Your task to perform on an android device: toggle location history Image 0: 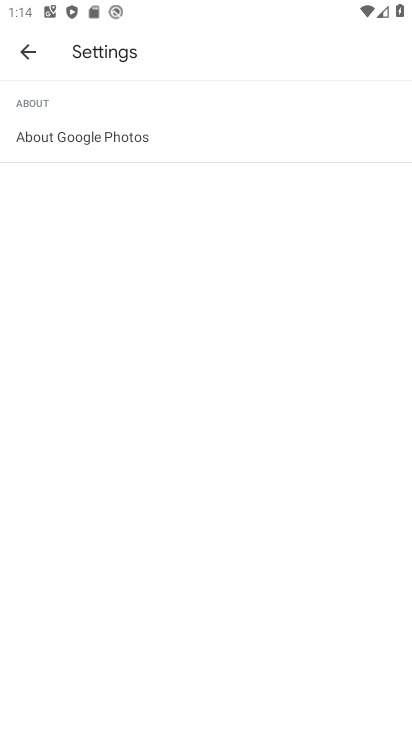
Step 0: click (31, 59)
Your task to perform on an android device: toggle location history Image 1: 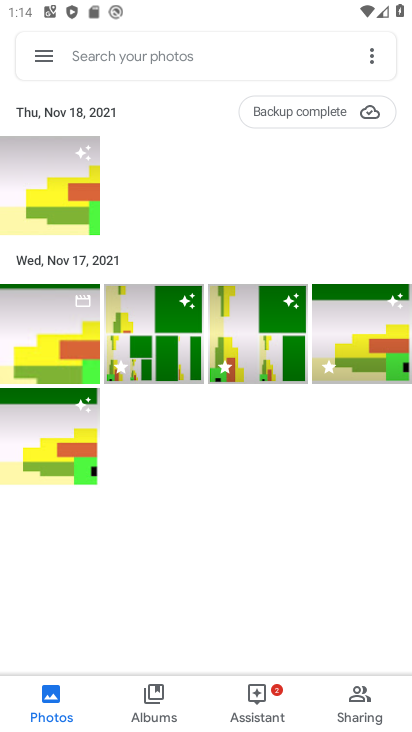
Step 1: click (38, 59)
Your task to perform on an android device: toggle location history Image 2: 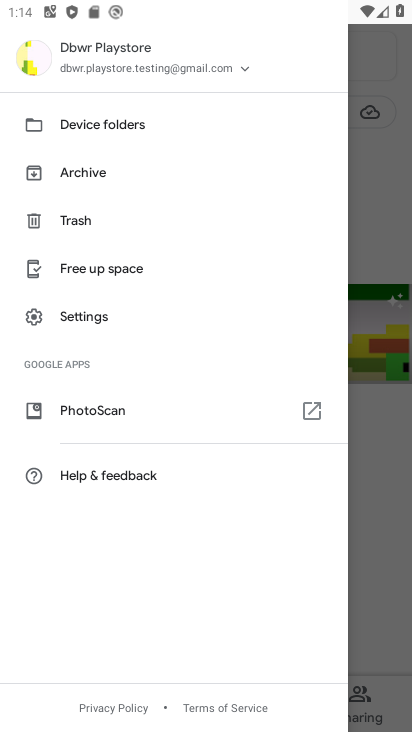
Step 2: press back button
Your task to perform on an android device: toggle location history Image 3: 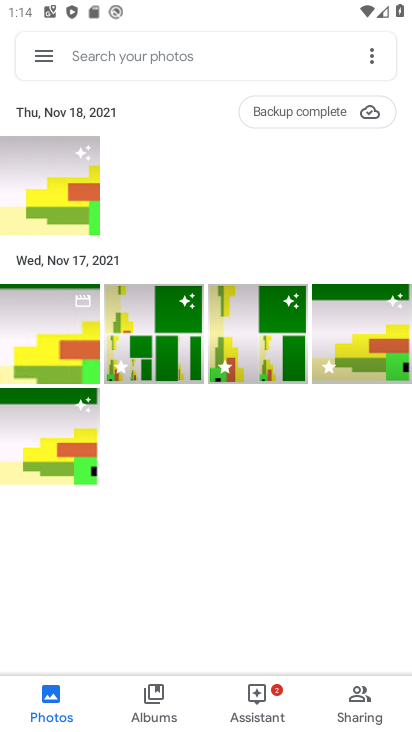
Step 3: press back button
Your task to perform on an android device: toggle location history Image 4: 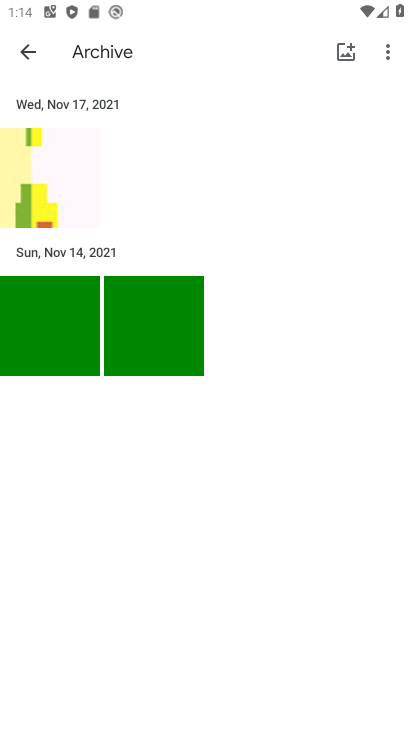
Step 4: press back button
Your task to perform on an android device: toggle location history Image 5: 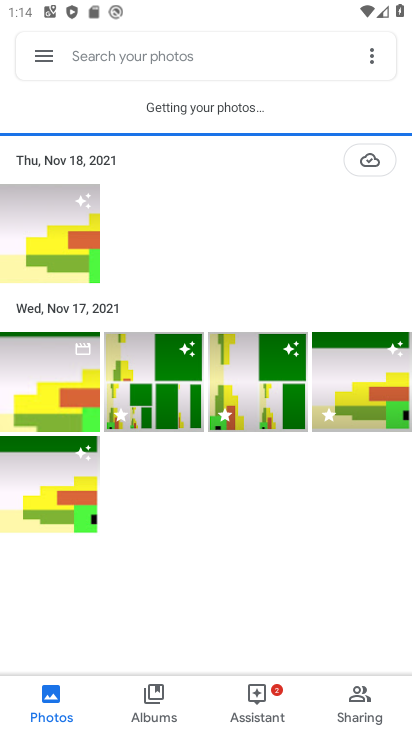
Step 5: press back button
Your task to perform on an android device: toggle location history Image 6: 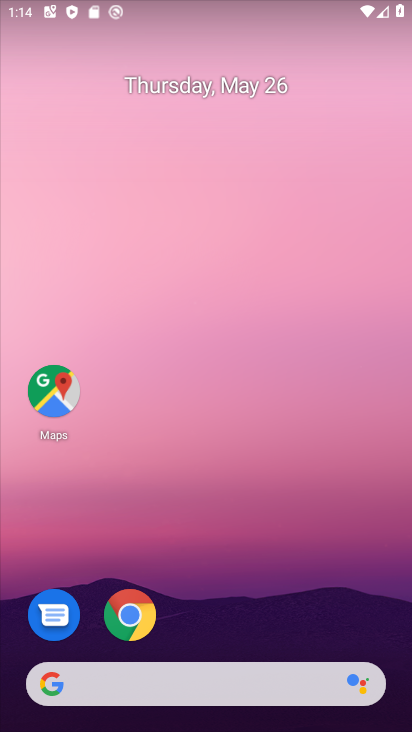
Step 6: drag from (240, 613) to (325, 31)
Your task to perform on an android device: toggle location history Image 7: 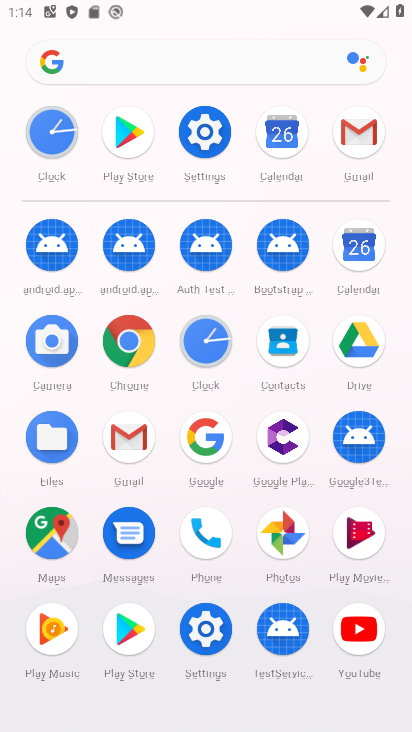
Step 7: click (198, 131)
Your task to perform on an android device: toggle location history Image 8: 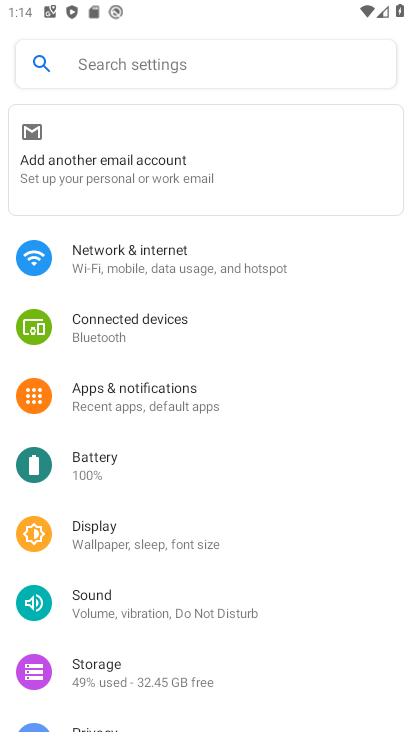
Step 8: drag from (136, 679) to (228, 120)
Your task to perform on an android device: toggle location history Image 9: 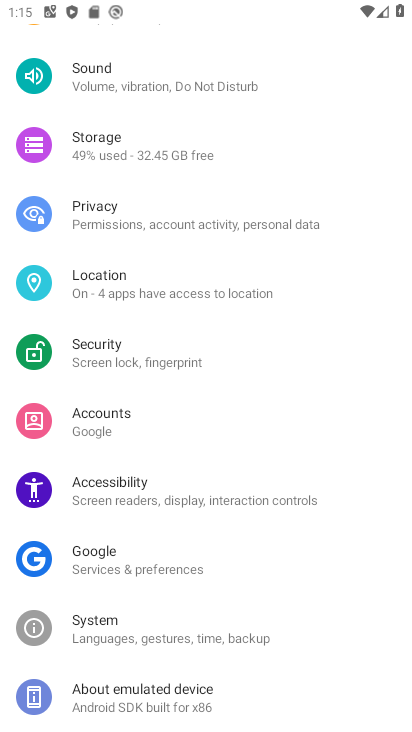
Step 9: click (101, 291)
Your task to perform on an android device: toggle location history Image 10: 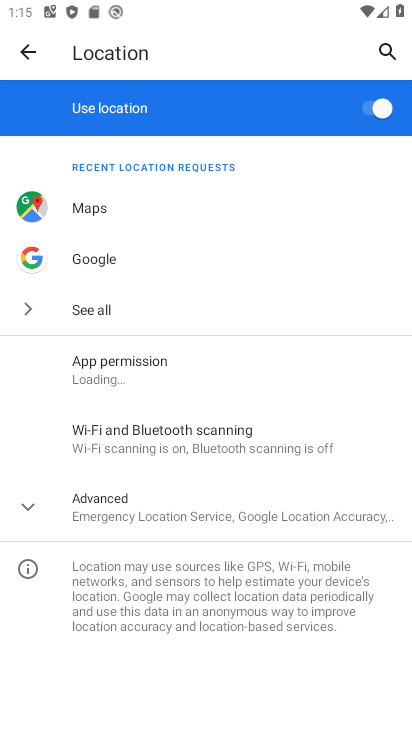
Step 10: click (164, 511)
Your task to perform on an android device: toggle location history Image 11: 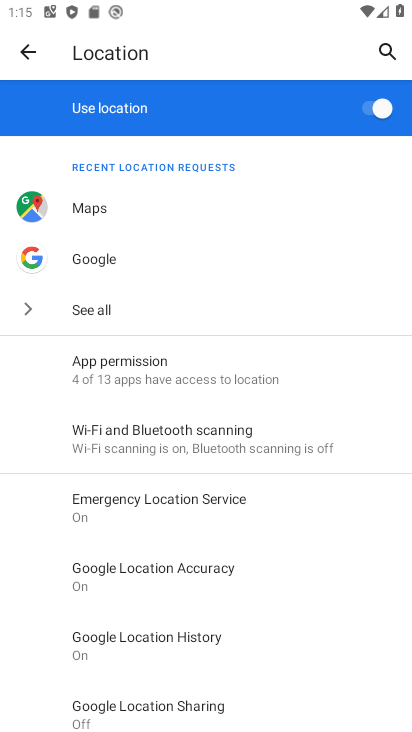
Step 11: click (184, 640)
Your task to perform on an android device: toggle location history Image 12: 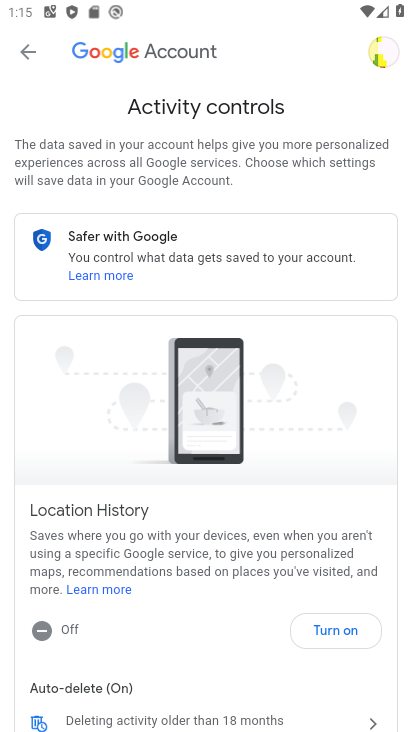
Step 12: click (348, 635)
Your task to perform on an android device: toggle location history Image 13: 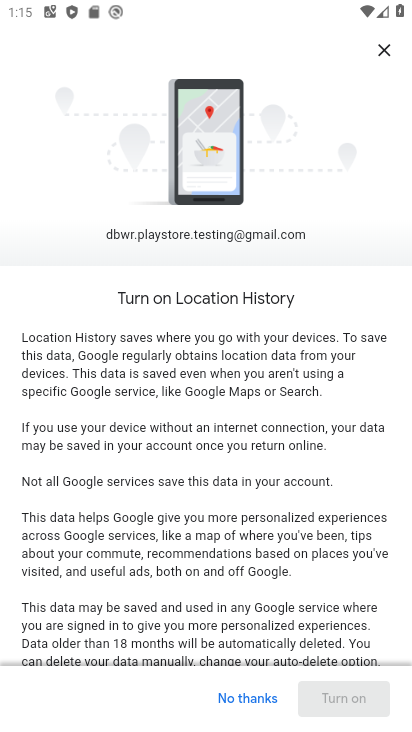
Step 13: drag from (319, 615) to (312, 160)
Your task to perform on an android device: toggle location history Image 14: 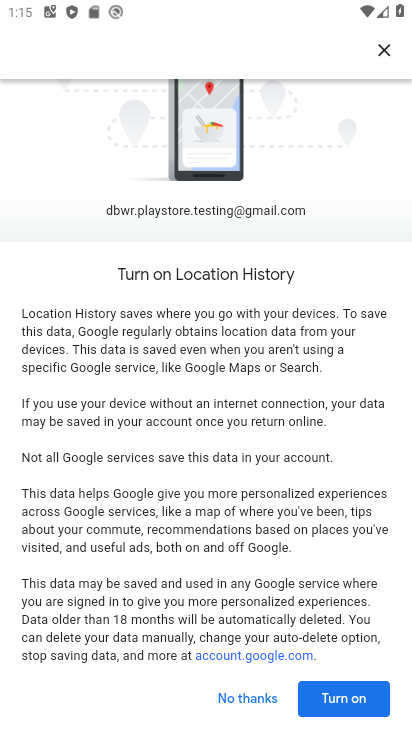
Step 14: drag from (231, 598) to (311, 447)
Your task to perform on an android device: toggle location history Image 15: 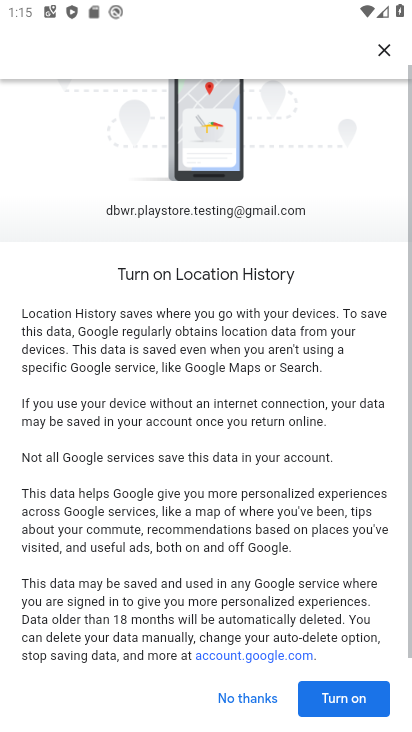
Step 15: click (328, 695)
Your task to perform on an android device: toggle location history Image 16: 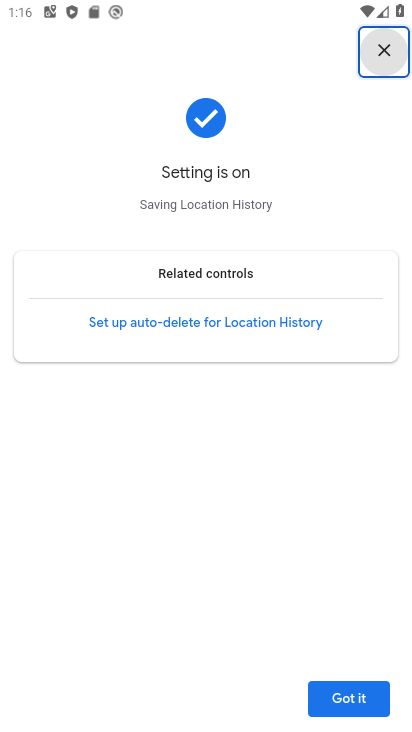
Step 16: task complete